Your task to perform on an android device: empty trash in the gmail app Image 0: 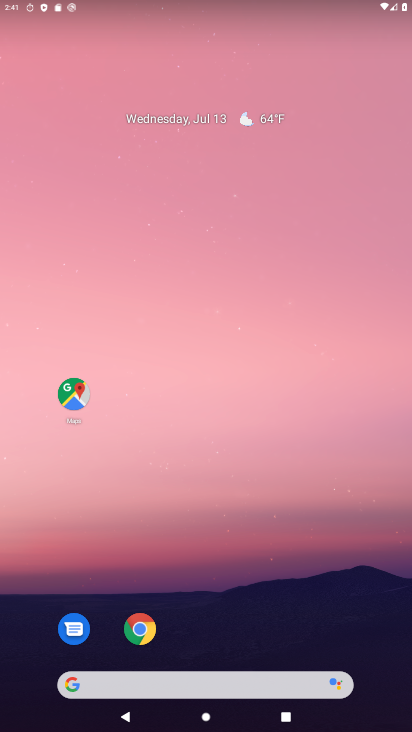
Step 0: drag from (180, 686) to (196, 13)
Your task to perform on an android device: empty trash in the gmail app Image 1: 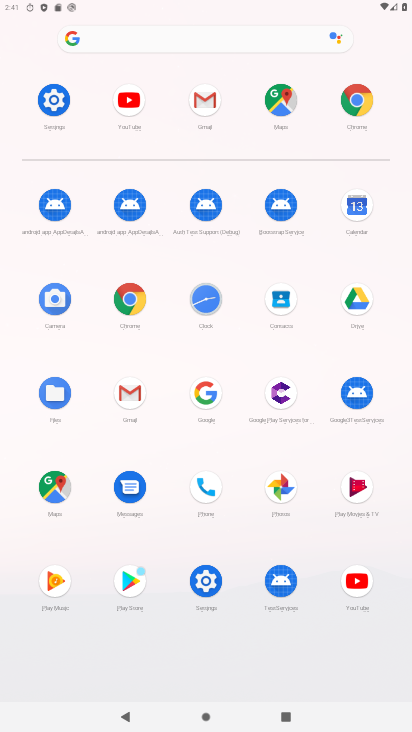
Step 1: click (125, 392)
Your task to perform on an android device: empty trash in the gmail app Image 2: 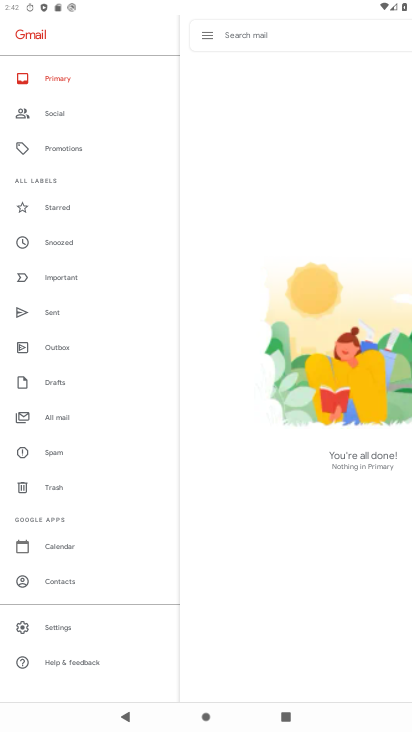
Step 2: click (52, 446)
Your task to perform on an android device: empty trash in the gmail app Image 3: 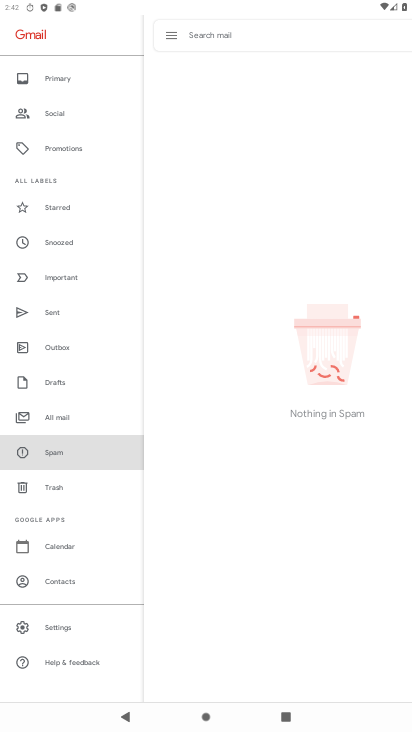
Step 3: task complete